Your task to perform on an android device: Open eBay Image 0: 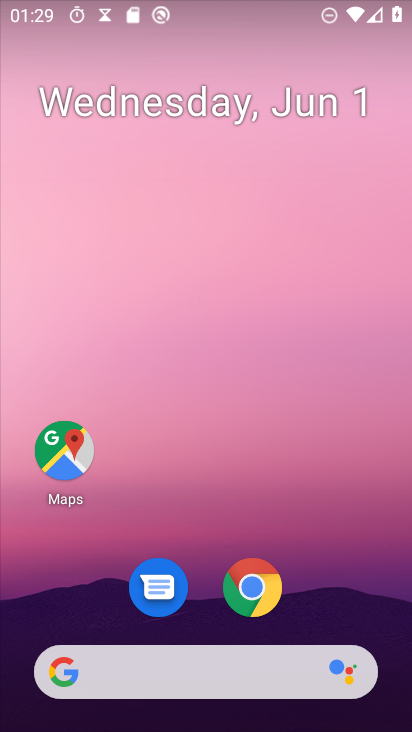
Step 0: click (252, 590)
Your task to perform on an android device: Open eBay Image 1: 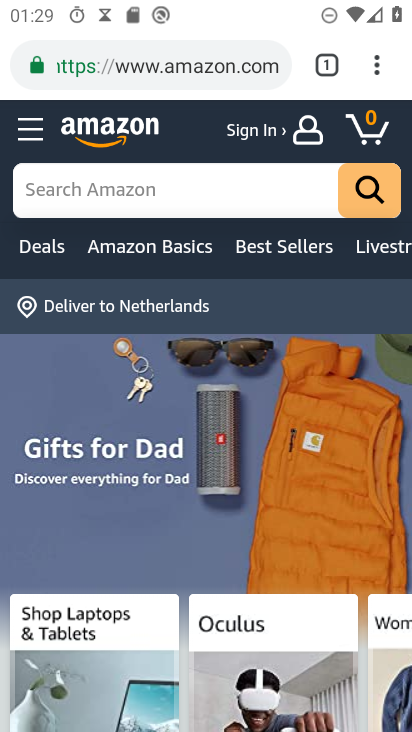
Step 1: click (164, 67)
Your task to perform on an android device: Open eBay Image 2: 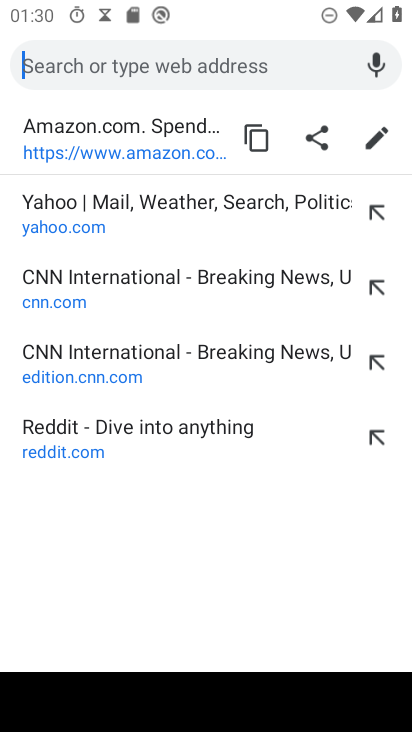
Step 2: type "ebay"
Your task to perform on an android device: Open eBay Image 3: 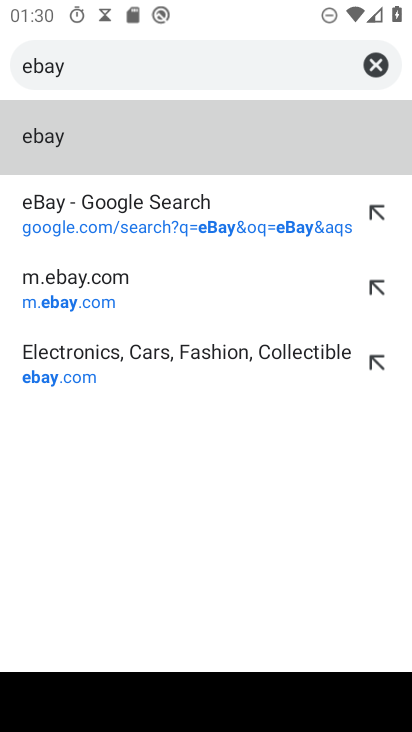
Step 3: click (40, 202)
Your task to perform on an android device: Open eBay Image 4: 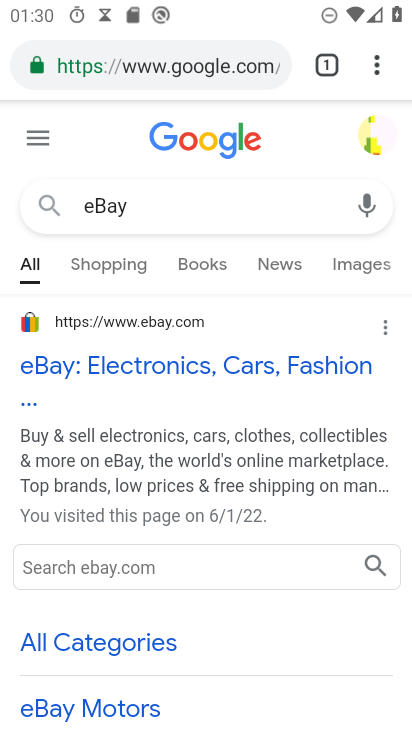
Step 4: click (141, 368)
Your task to perform on an android device: Open eBay Image 5: 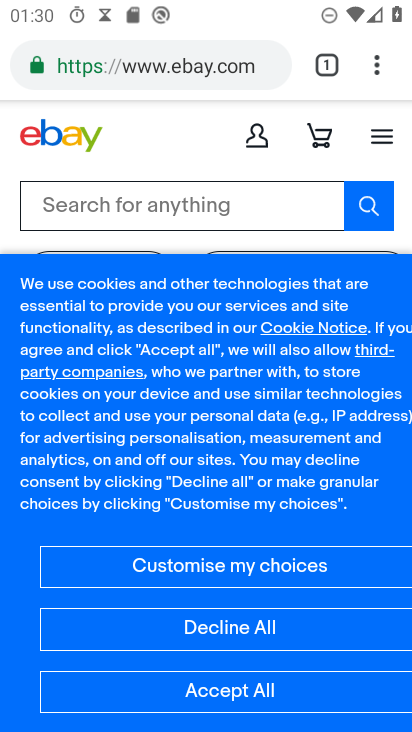
Step 5: task complete